Your task to perform on an android device: Open maps Image 0: 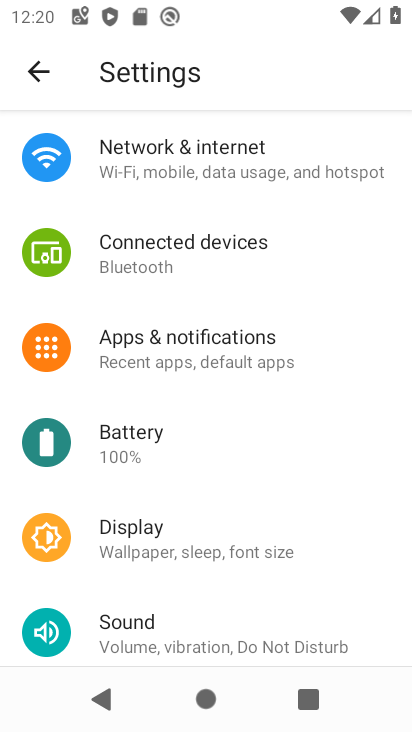
Step 0: press home button
Your task to perform on an android device: Open maps Image 1: 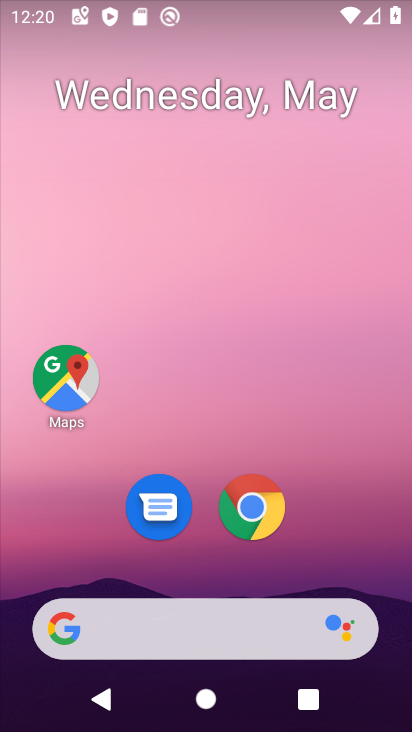
Step 1: click (57, 371)
Your task to perform on an android device: Open maps Image 2: 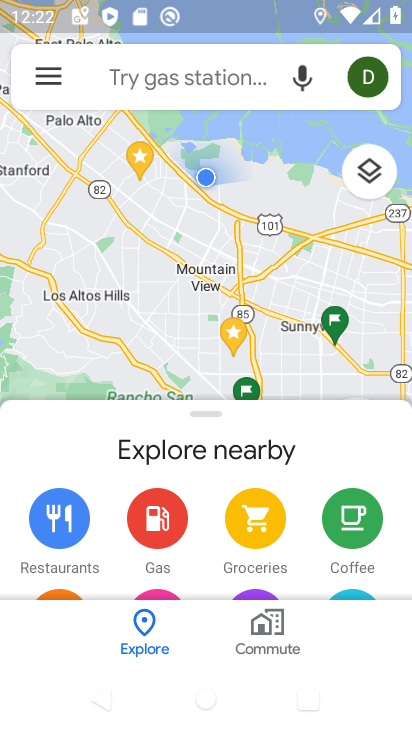
Step 2: task complete